Your task to perform on an android device: delete the emails in spam in the gmail app Image 0: 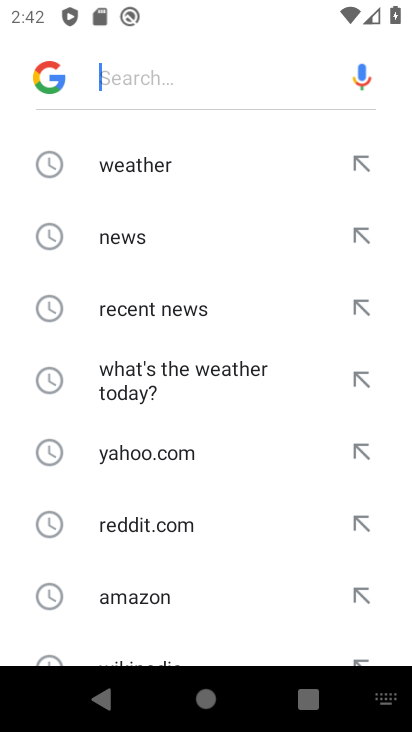
Step 0: press home button
Your task to perform on an android device: delete the emails in spam in the gmail app Image 1: 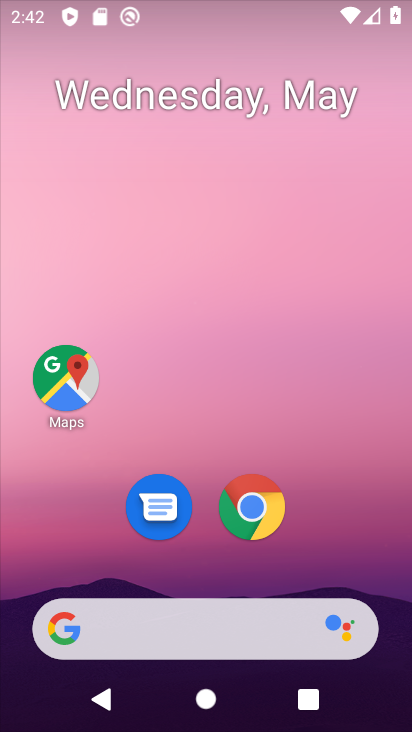
Step 1: drag from (206, 539) to (189, 51)
Your task to perform on an android device: delete the emails in spam in the gmail app Image 2: 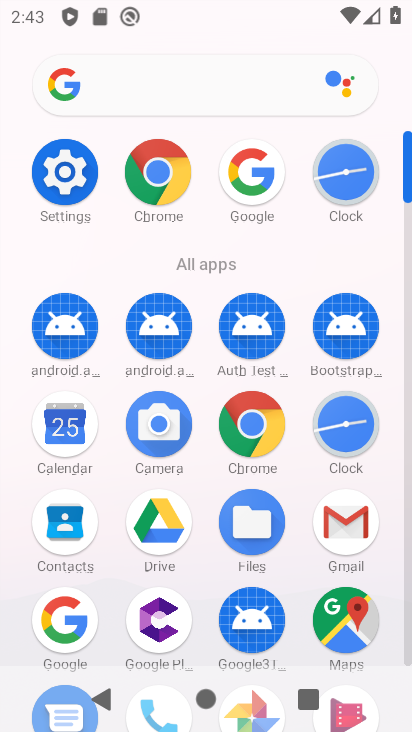
Step 2: click (346, 525)
Your task to perform on an android device: delete the emails in spam in the gmail app Image 3: 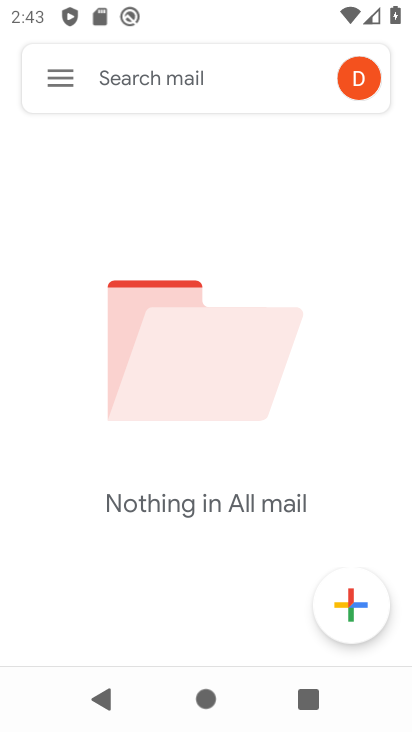
Step 3: click (54, 76)
Your task to perform on an android device: delete the emails in spam in the gmail app Image 4: 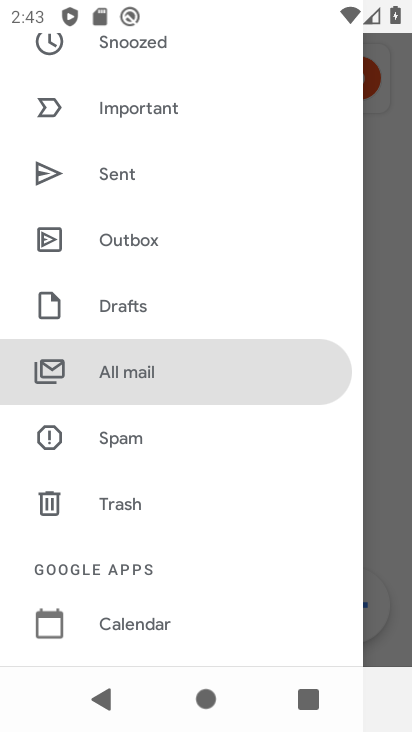
Step 4: click (160, 444)
Your task to perform on an android device: delete the emails in spam in the gmail app Image 5: 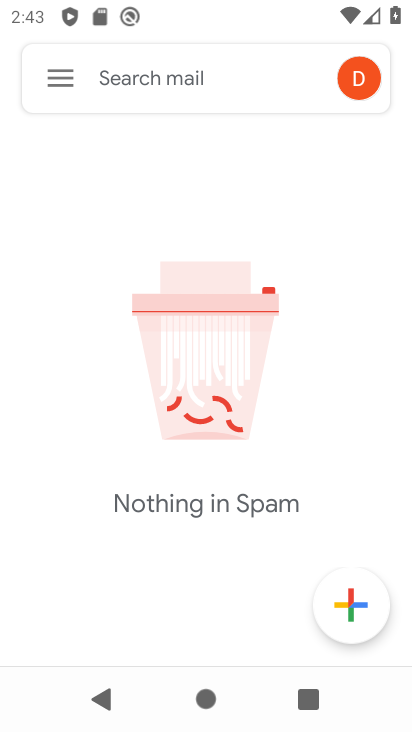
Step 5: task complete